Your task to perform on an android device: open app "Lyft - Rideshare, Bikes, Scooters & Transit" (install if not already installed), go to login, and select forgot password Image 0: 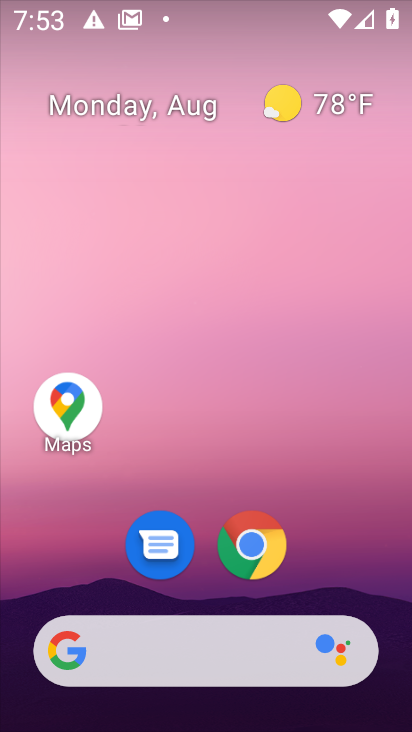
Step 0: press home button
Your task to perform on an android device: open app "Lyft - Rideshare, Bikes, Scooters & Transit" (install if not already installed), go to login, and select forgot password Image 1: 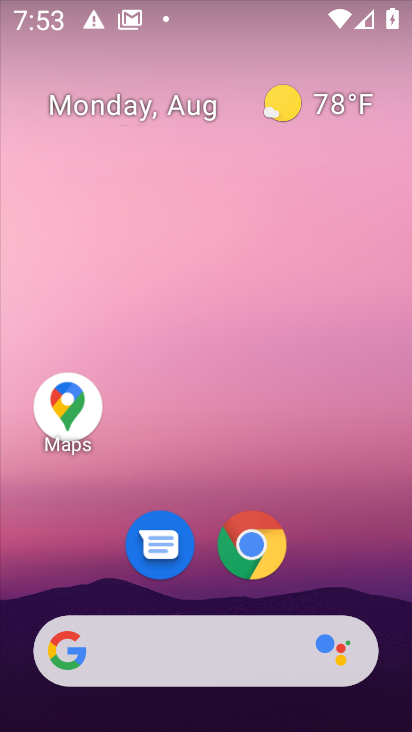
Step 1: drag from (365, 582) to (363, 135)
Your task to perform on an android device: open app "Lyft - Rideshare, Bikes, Scooters & Transit" (install if not already installed), go to login, and select forgot password Image 2: 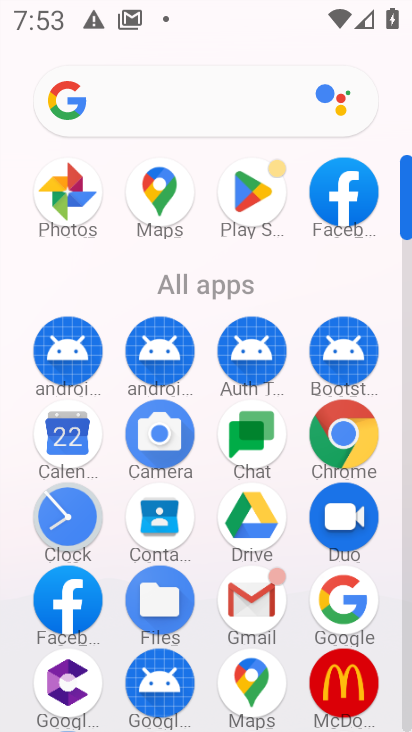
Step 2: click (255, 198)
Your task to perform on an android device: open app "Lyft - Rideshare, Bikes, Scooters & Transit" (install if not already installed), go to login, and select forgot password Image 3: 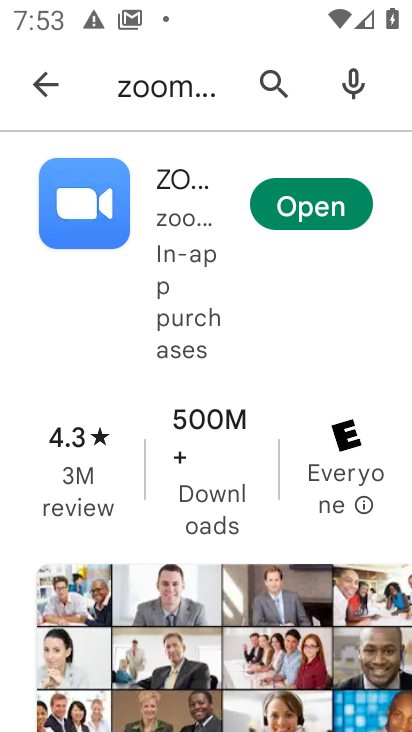
Step 3: press back button
Your task to perform on an android device: open app "Lyft - Rideshare, Bikes, Scooters & Transit" (install if not already installed), go to login, and select forgot password Image 4: 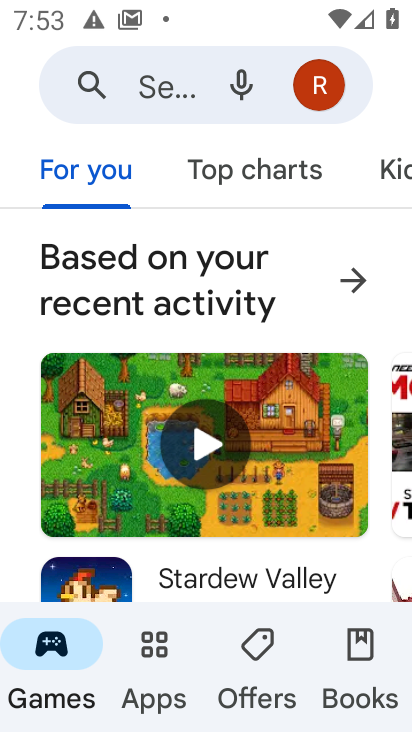
Step 4: click (155, 102)
Your task to perform on an android device: open app "Lyft - Rideshare, Bikes, Scooters & Transit" (install if not already installed), go to login, and select forgot password Image 5: 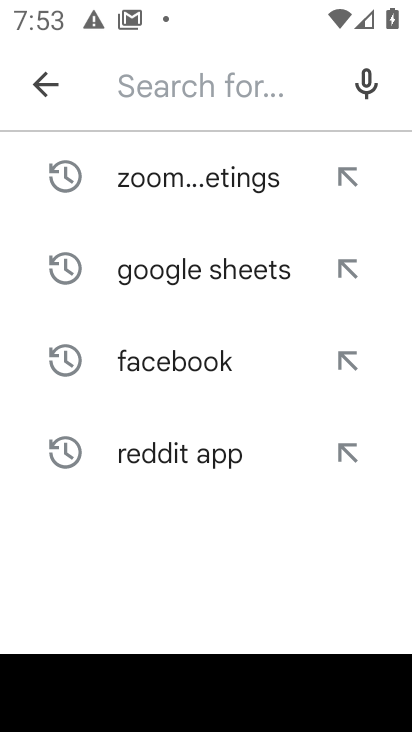
Step 5: type "Lyft - Rideshare, Bikes, Scooters & Transit"
Your task to perform on an android device: open app "Lyft - Rideshare, Bikes, Scooters & Transit" (install if not already installed), go to login, and select forgot password Image 6: 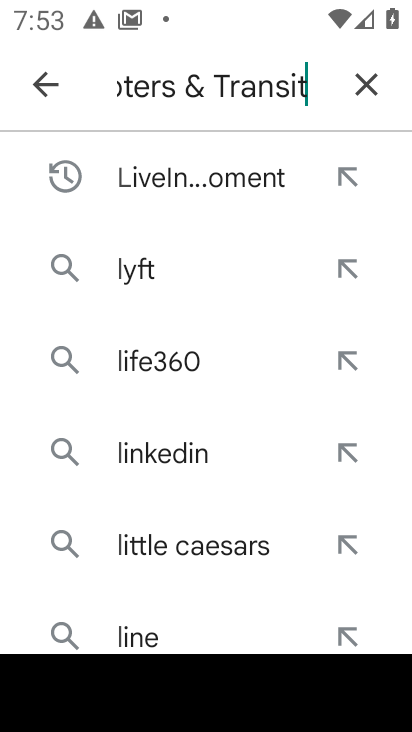
Step 6: press enter
Your task to perform on an android device: open app "Lyft - Rideshare, Bikes, Scooters & Transit" (install if not already installed), go to login, and select forgot password Image 7: 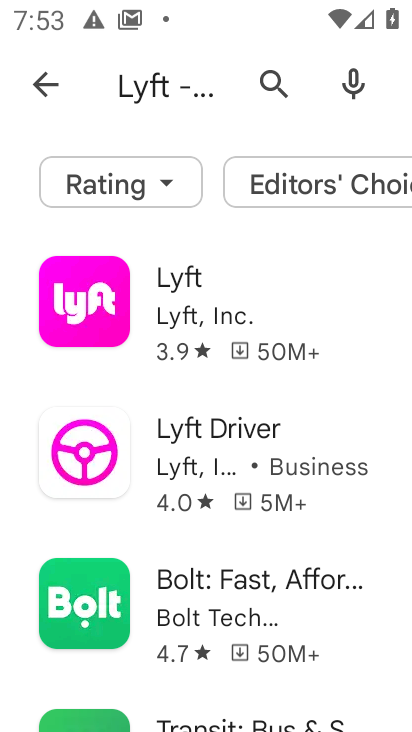
Step 7: click (206, 286)
Your task to perform on an android device: open app "Lyft - Rideshare, Bikes, Scooters & Transit" (install if not already installed), go to login, and select forgot password Image 8: 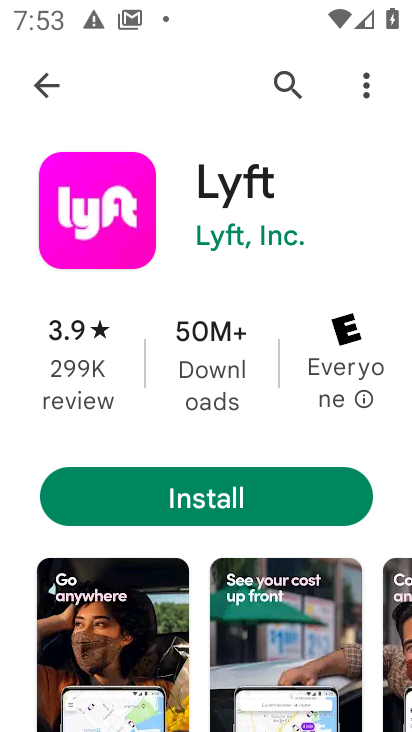
Step 8: click (236, 508)
Your task to perform on an android device: open app "Lyft - Rideshare, Bikes, Scooters & Transit" (install if not already installed), go to login, and select forgot password Image 9: 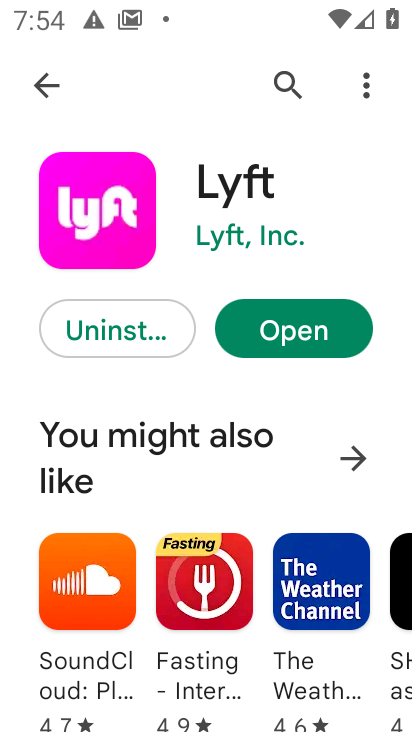
Step 9: click (340, 326)
Your task to perform on an android device: open app "Lyft - Rideshare, Bikes, Scooters & Transit" (install if not already installed), go to login, and select forgot password Image 10: 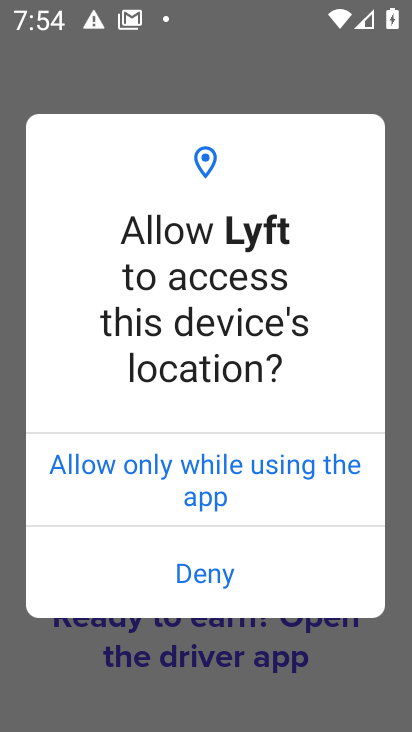
Step 10: click (246, 577)
Your task to perform on an android device: open app "Lyft - Rideshare, Bikes, Scooters & Transit" (install if not already installed), go to login, and select forgot password Image 11: 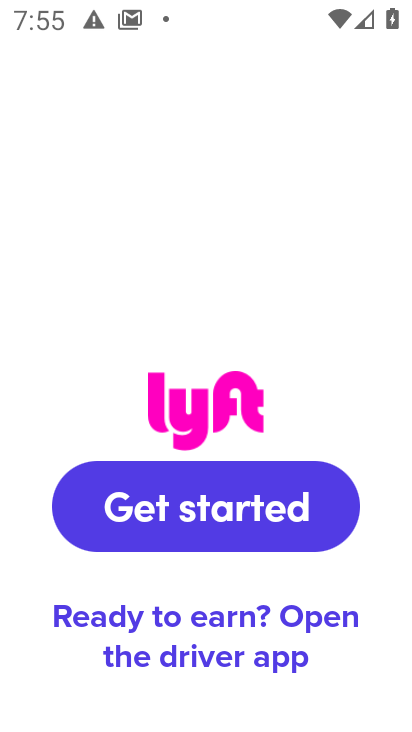
Step 11: click (253, 507)
Your task to perform on an android device: open app "Lyft - Rideshare, Bikes, Scooters & Transit" (install if not already installed), go to login, and select forgot password Image 12: 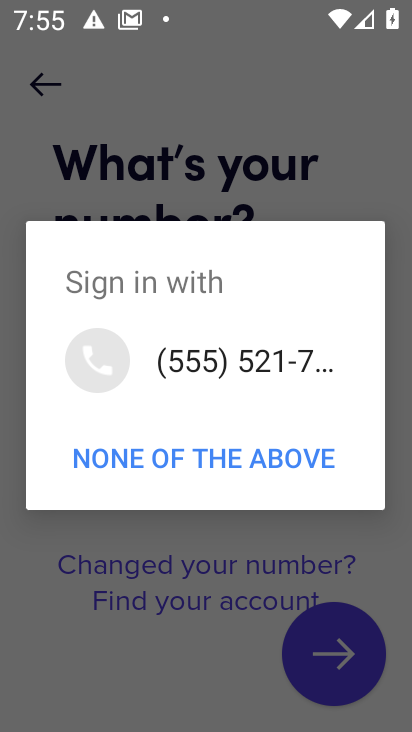
Step 12: click (194, 470)
Your task to perform on an android device: open app "Lyft - Rideshare, Bikes, Scooters & Transit" (install if not already installed), go to login, and select forgot password Image 13: 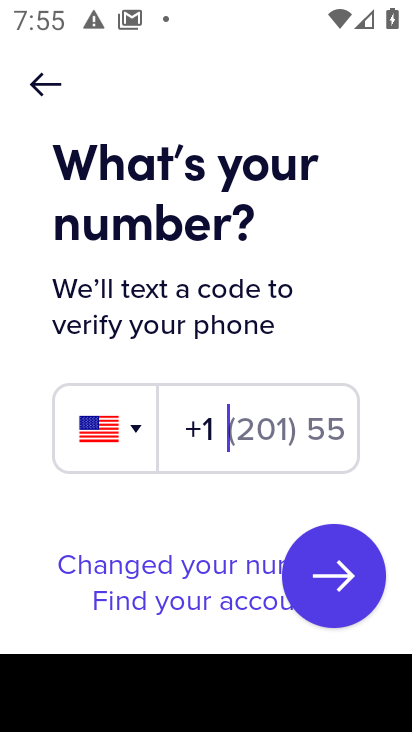
Step 13: click (329, 587)
Your task to perform on an android device: open app "Lyft - Rideshare, Bikes, Scooters & Transit" (install if not already installed), go to login, and select forgot password Image 14: 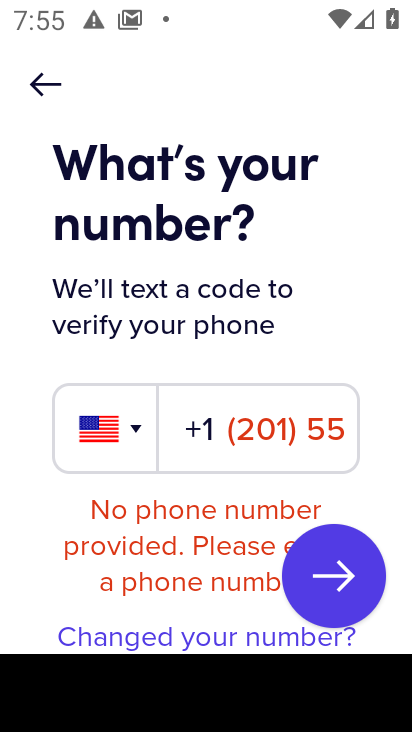
Step 14: click (278, 637)
Your task to perform on an android device: open app "Lyft - Rideshare, Bikes, Scooters & Transit" (install if not already installed), go to login, and select forgot password Image 15: 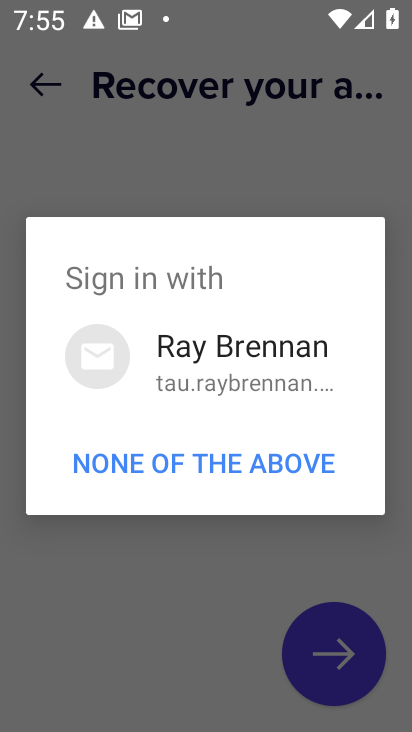
Step 15: click (195, 477)
Your task to perform on an android device: open app "Lyft - Rideshare, Bikes, Scooters & Transit" (install if not already installed), go to login, and select forgot password Image 16: 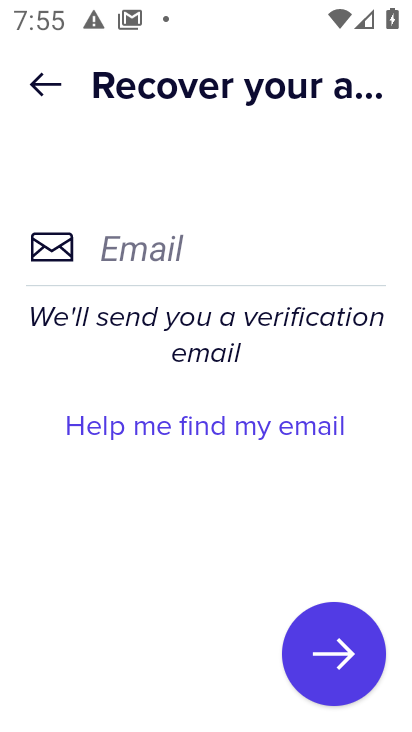
Step 16: task complete